Your task to perform on an android device: Open Maps and search for coffee Image 0: 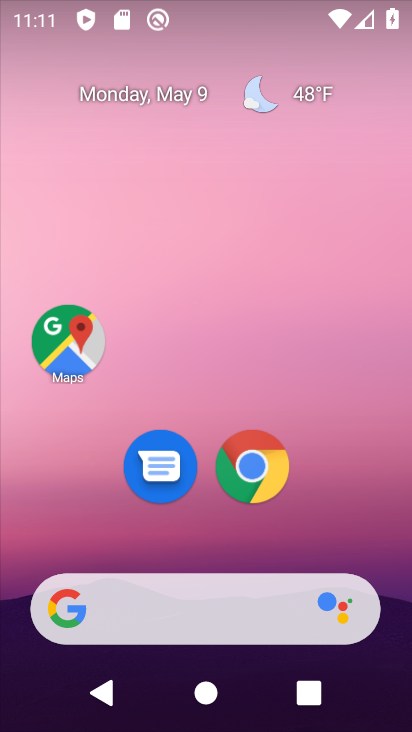
Step 0: click (68, 339)
Your task to perform on an android device: Open Maps and search for coffee Image 1: 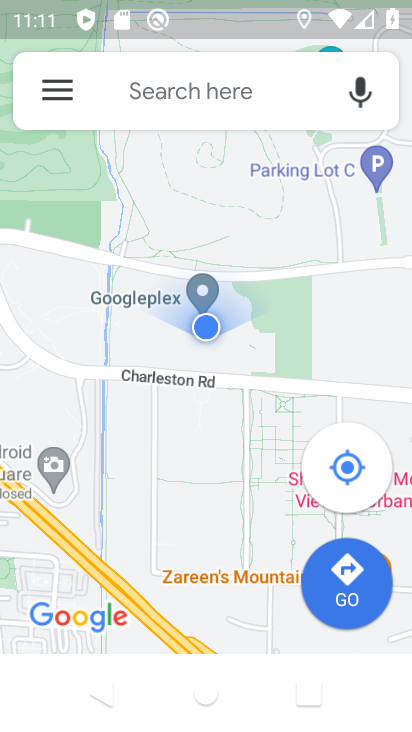
Step 1: click (135, 90)
Your task to perform on an android device: Open Maps and search for coffee Image 2: 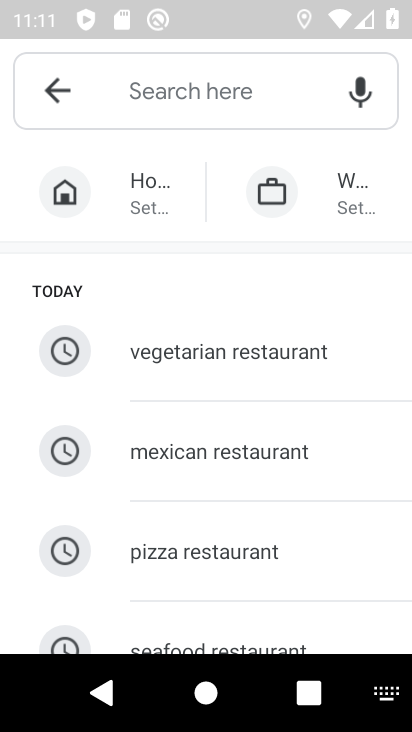
Step 2: type "coffee"
Your task to perform on an android device: Open Maps and search for coffee Image 3: 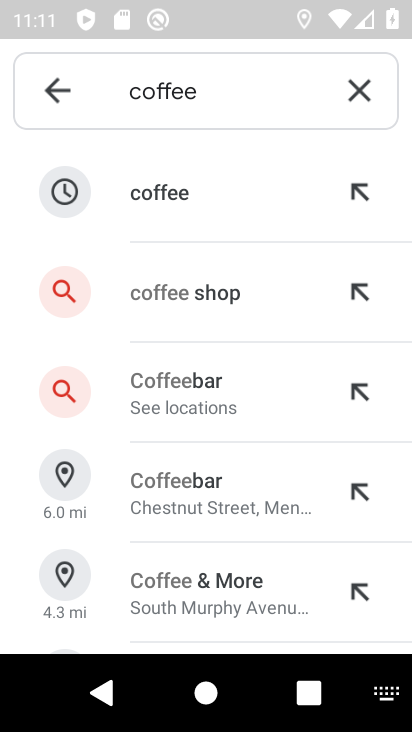
Step 3: click (194, 185)
Your task to perform on an android device: Open Maps and search for coffee Image 4: 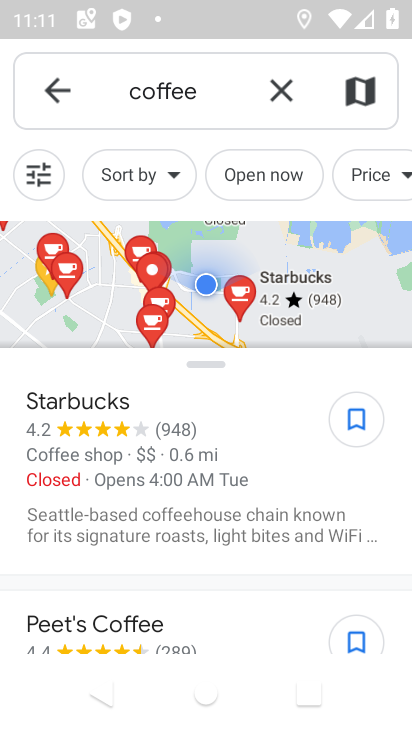
Step 4: task complete